Your task to perform on an android device: Open display settings Image 0: 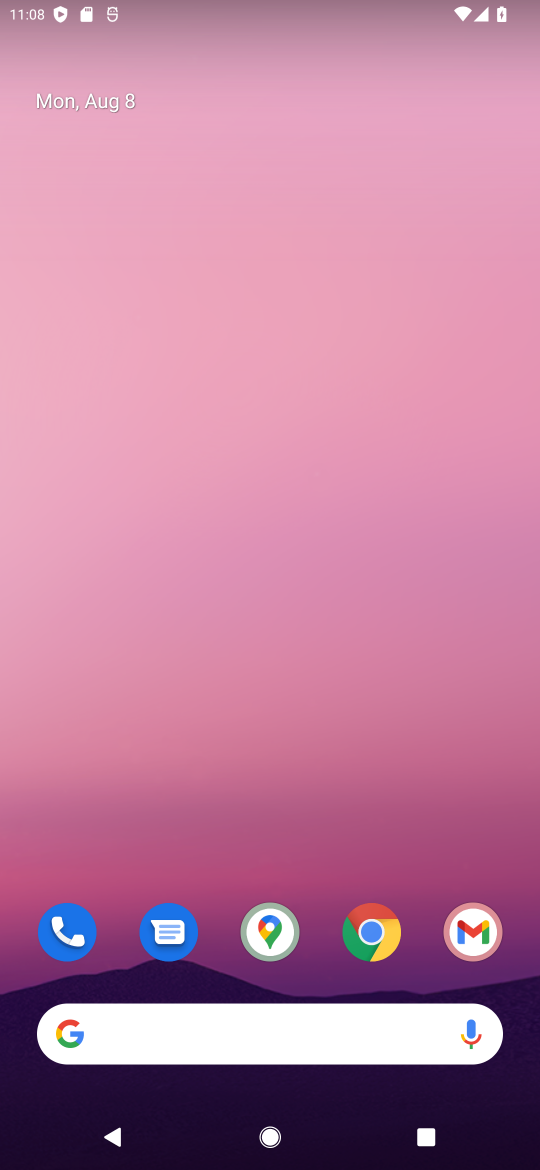
Step 0: drag from (195, 851) to (308, 199)
Your task to perform on an android device: Open display settings Image 1: 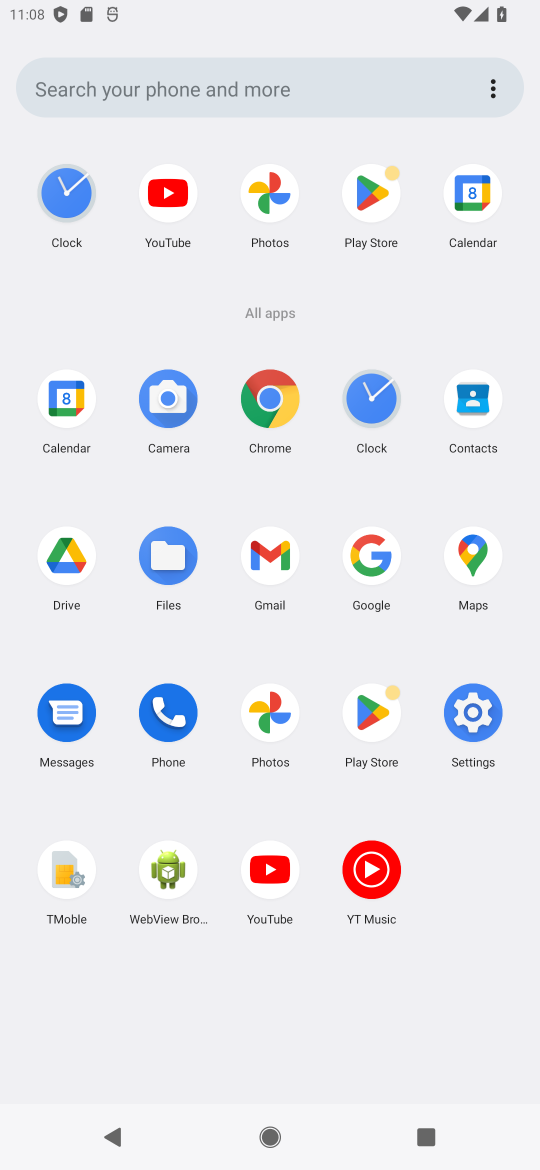
Step 1: click (434, 694)
Your task to perform on an android device: Open display settings Image 2: 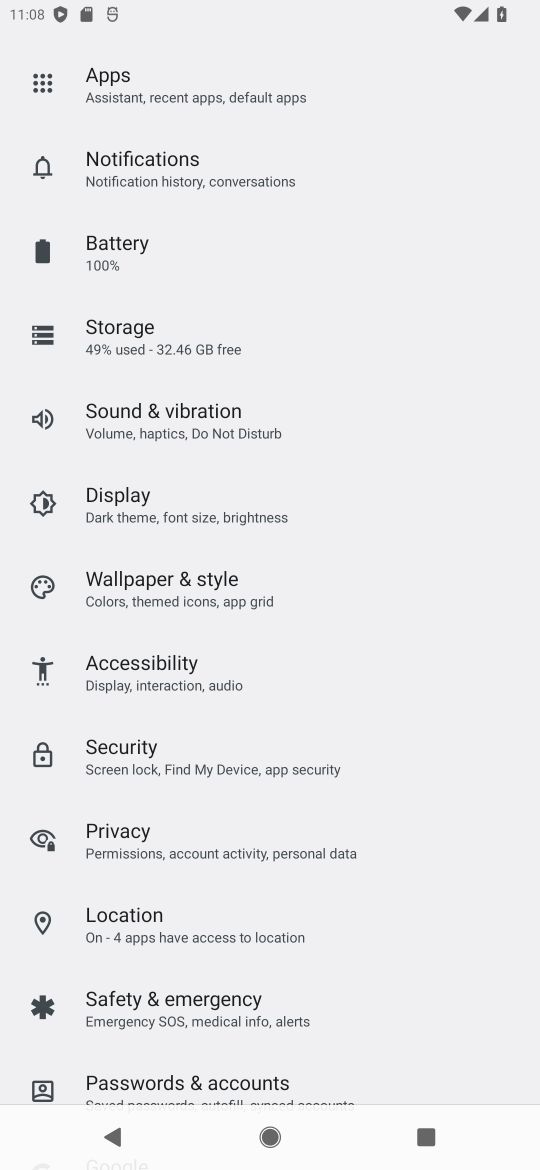
Step 2: click (114, 507)
Your task to perform on an android device: Open display settings Image 3: 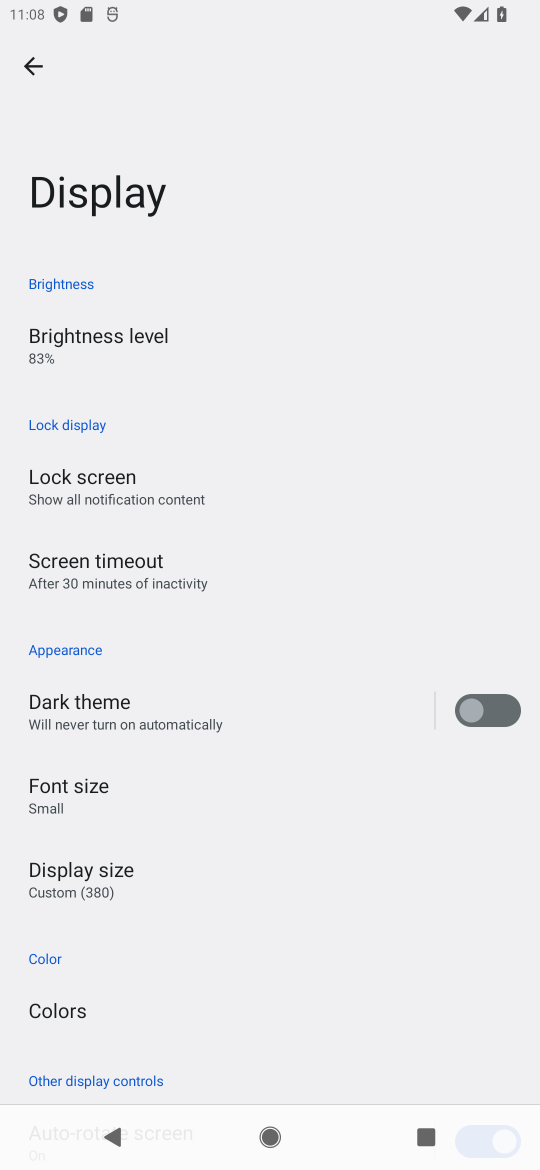
Step 3: task complete